Your task to perform on an android device: Search for 12ft 120W LED tube light on home depot Image 0: 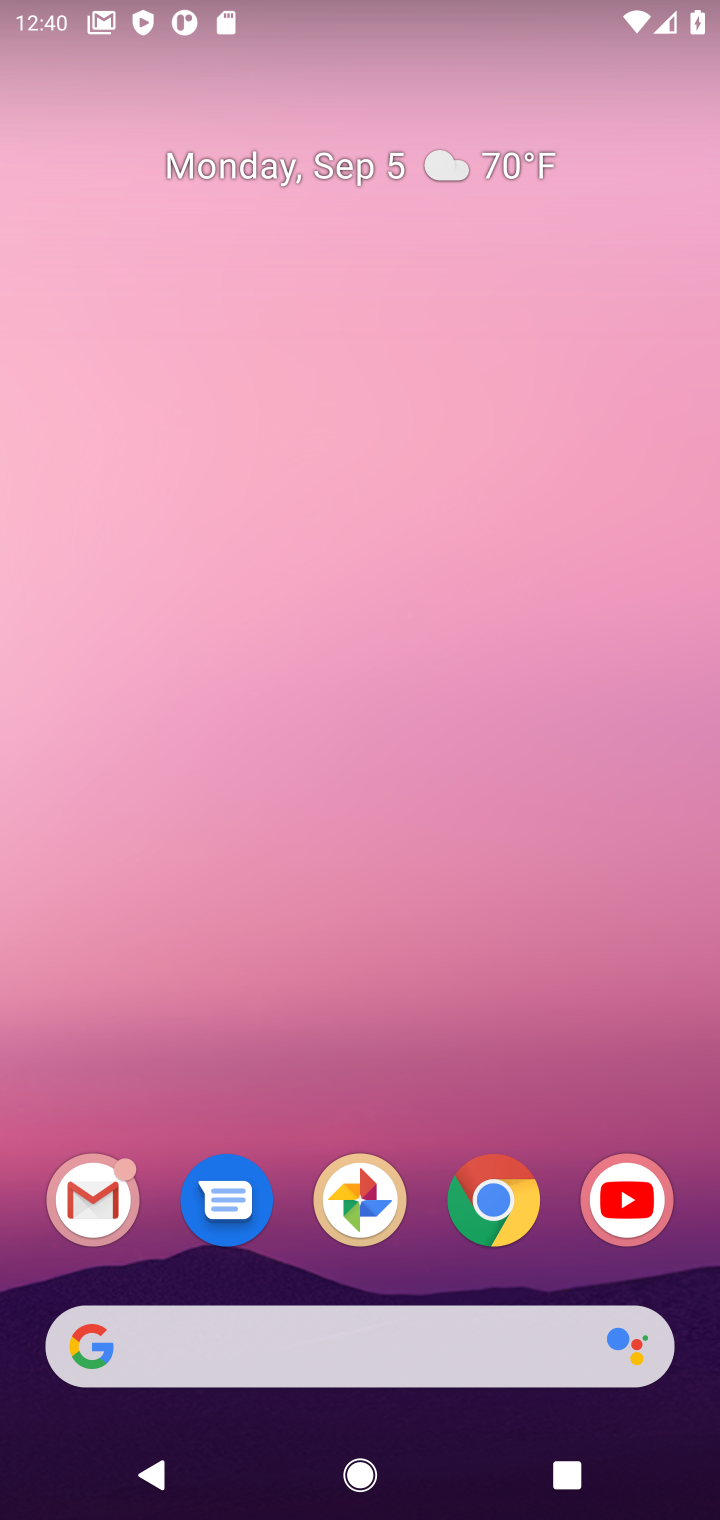
Step 0: click (366, 522)
Your task to perform on an android device: Search for 12ft 120W LED tube light on home depot Image 1: 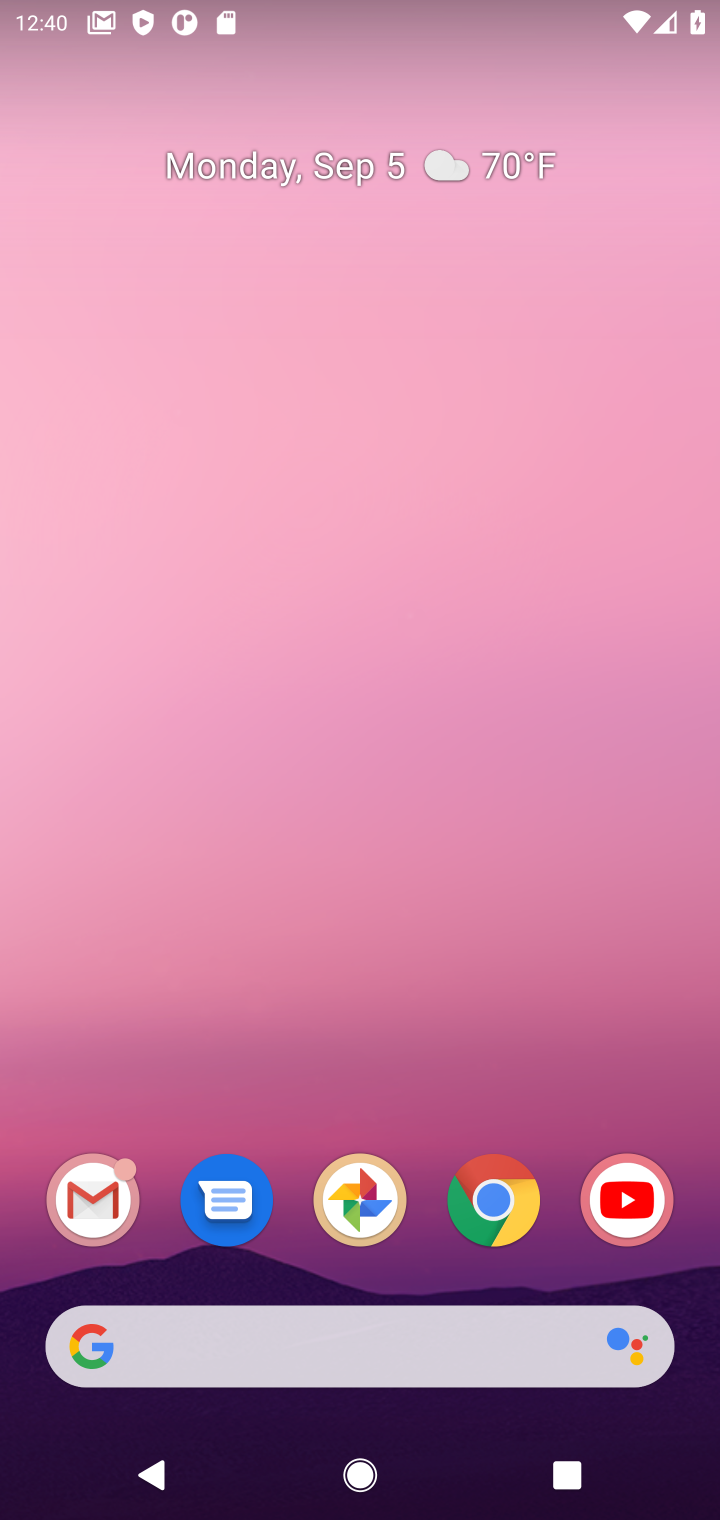
Step 1: drag from (448, 1175) to (420, 310)
Your task to perform on an android device: Search for 12ft 120W LED tube light on home depot Image 2: 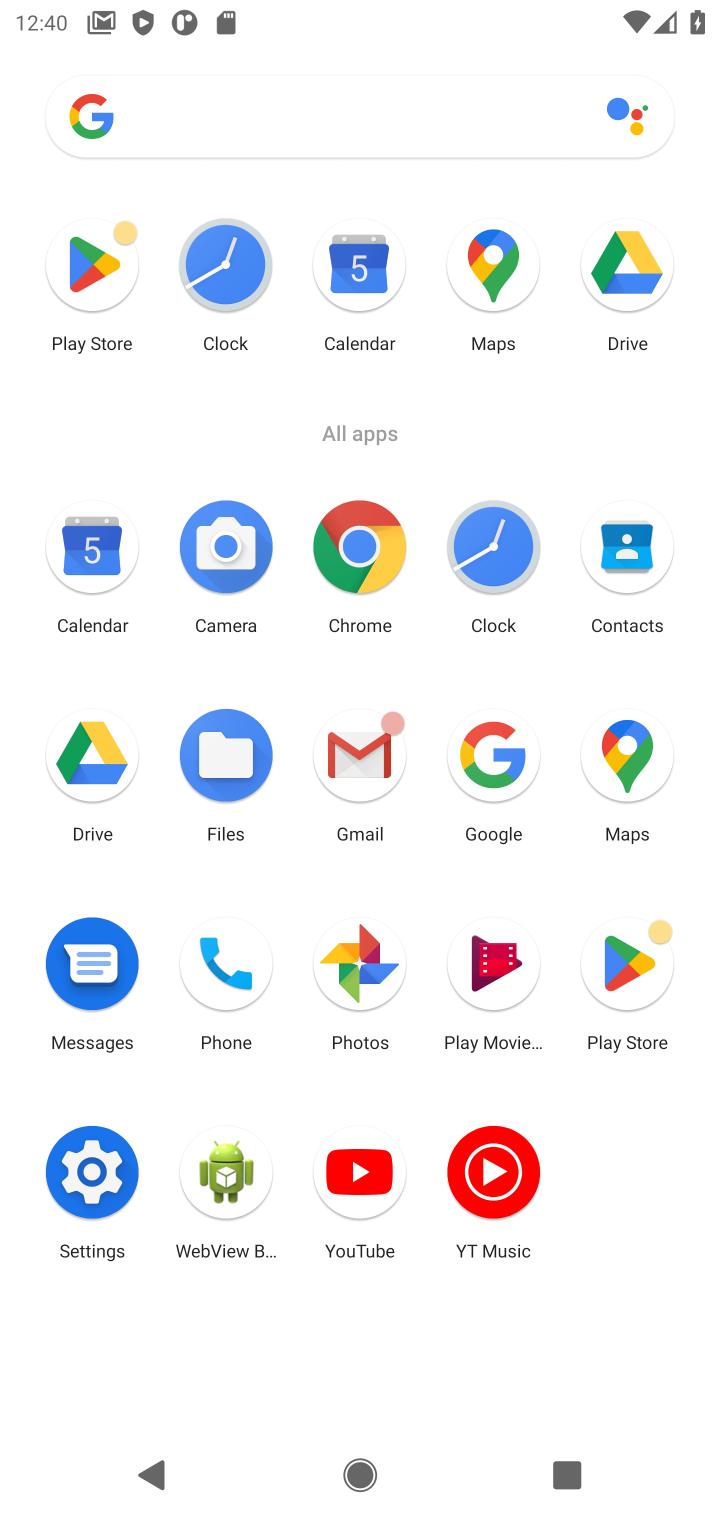
Step 2: click (366, 601)
Your task to perform on an android device: Search for 12ft 120W LED tube light on home depot Image 3: 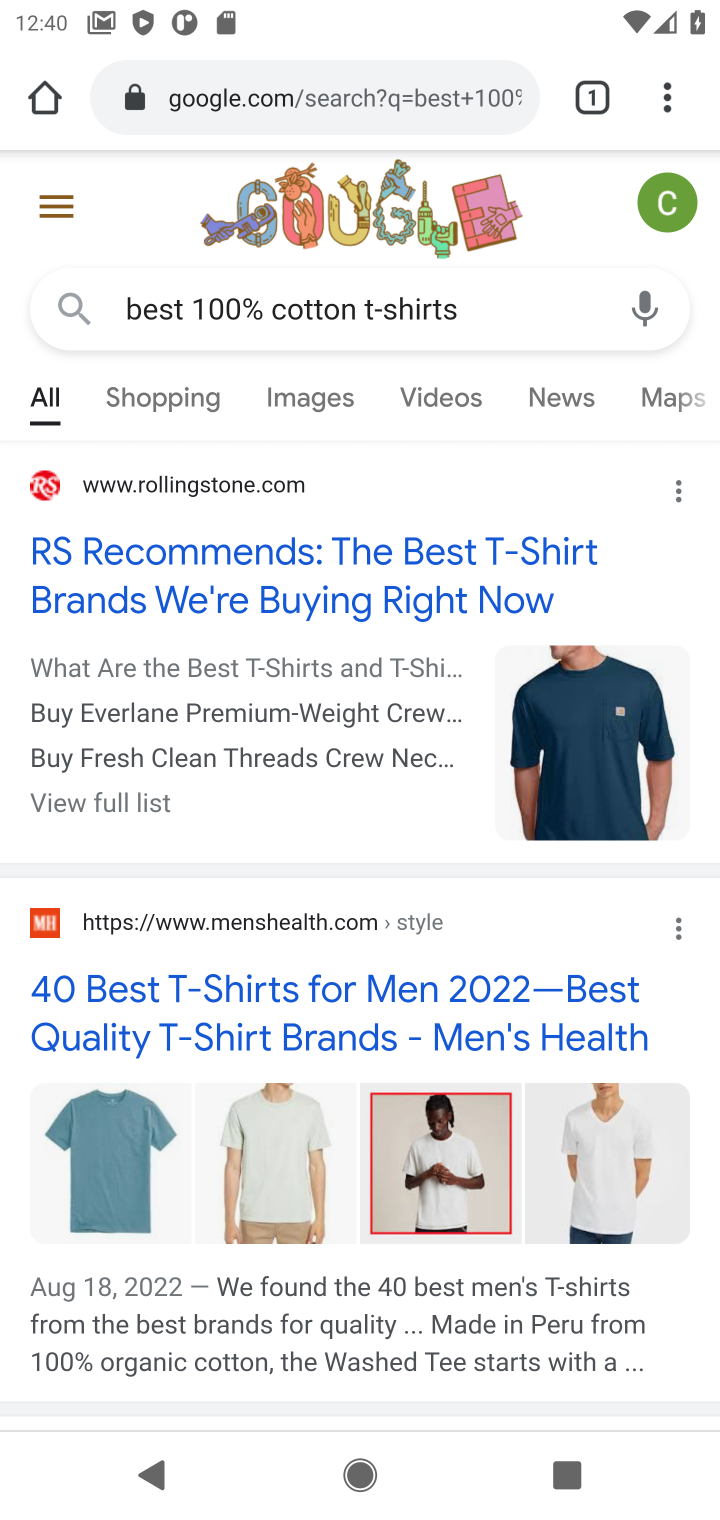
Step 3: click (480, 93)
Your task to perform on an android device: Search for 12ft 120W LED tube light on home depot Image 4: 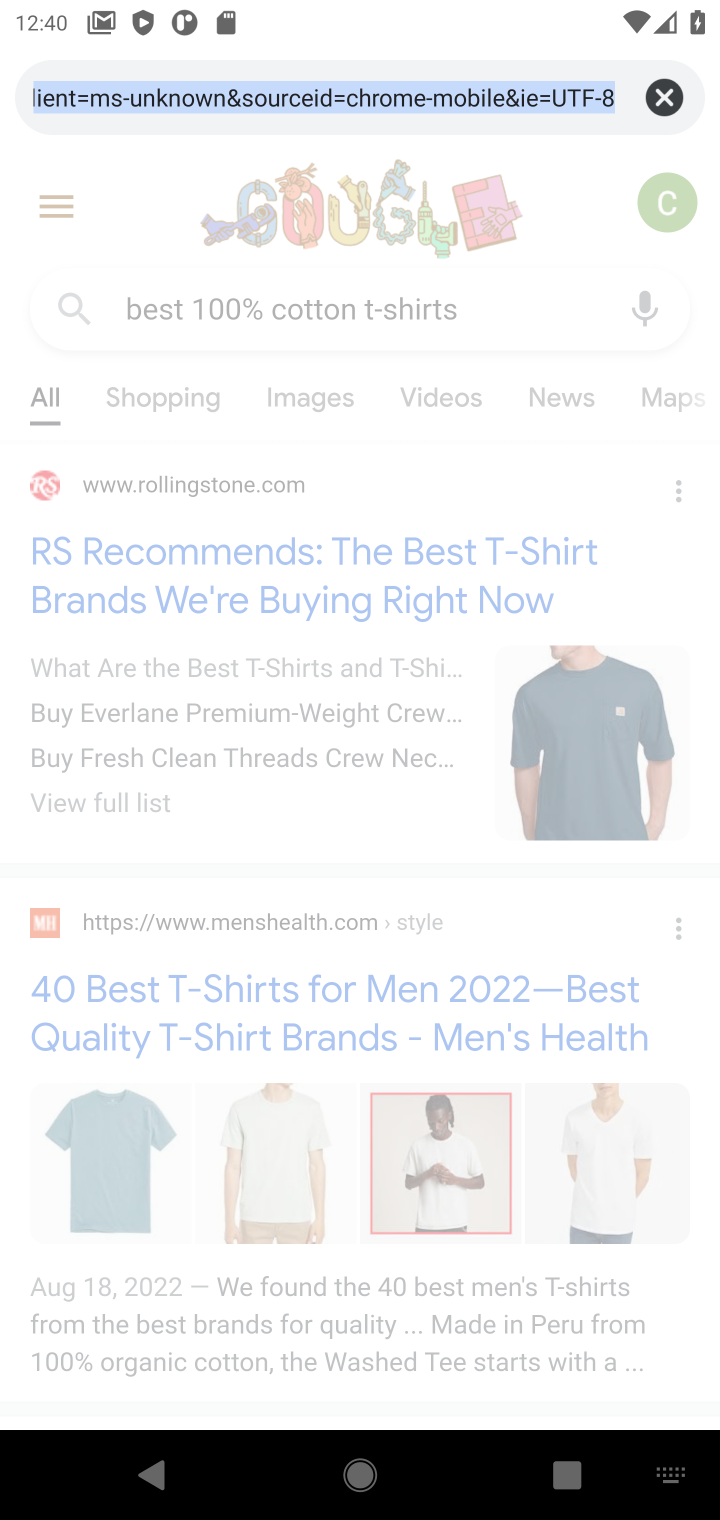
Step 4: type "home depot"
Your task to perform on an android device: Search for 12ft 120W LED tube light on home depot Image 5: 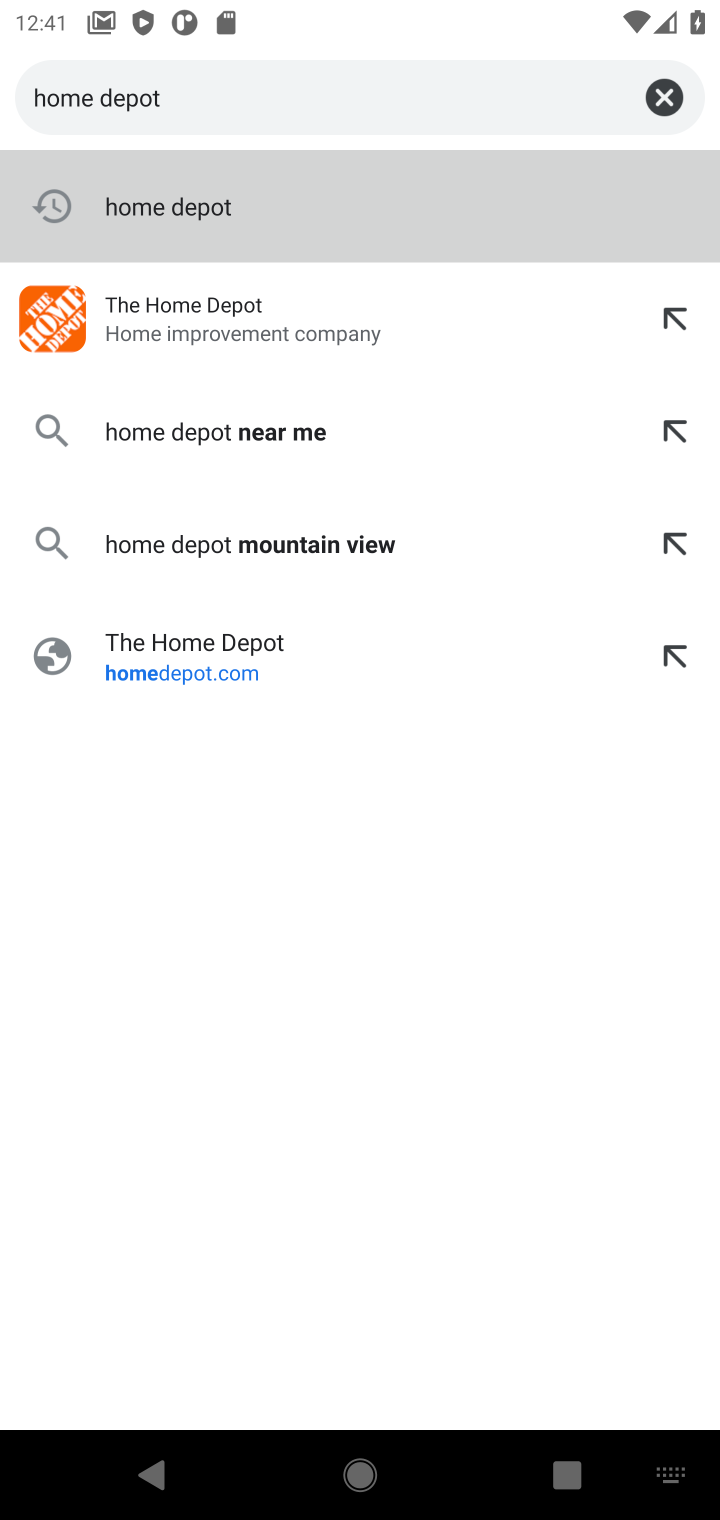
Step 5: click (92, 341)
Your task to perform on an android device: Search for 12ft 120W LED tube light on home depot Image 6: 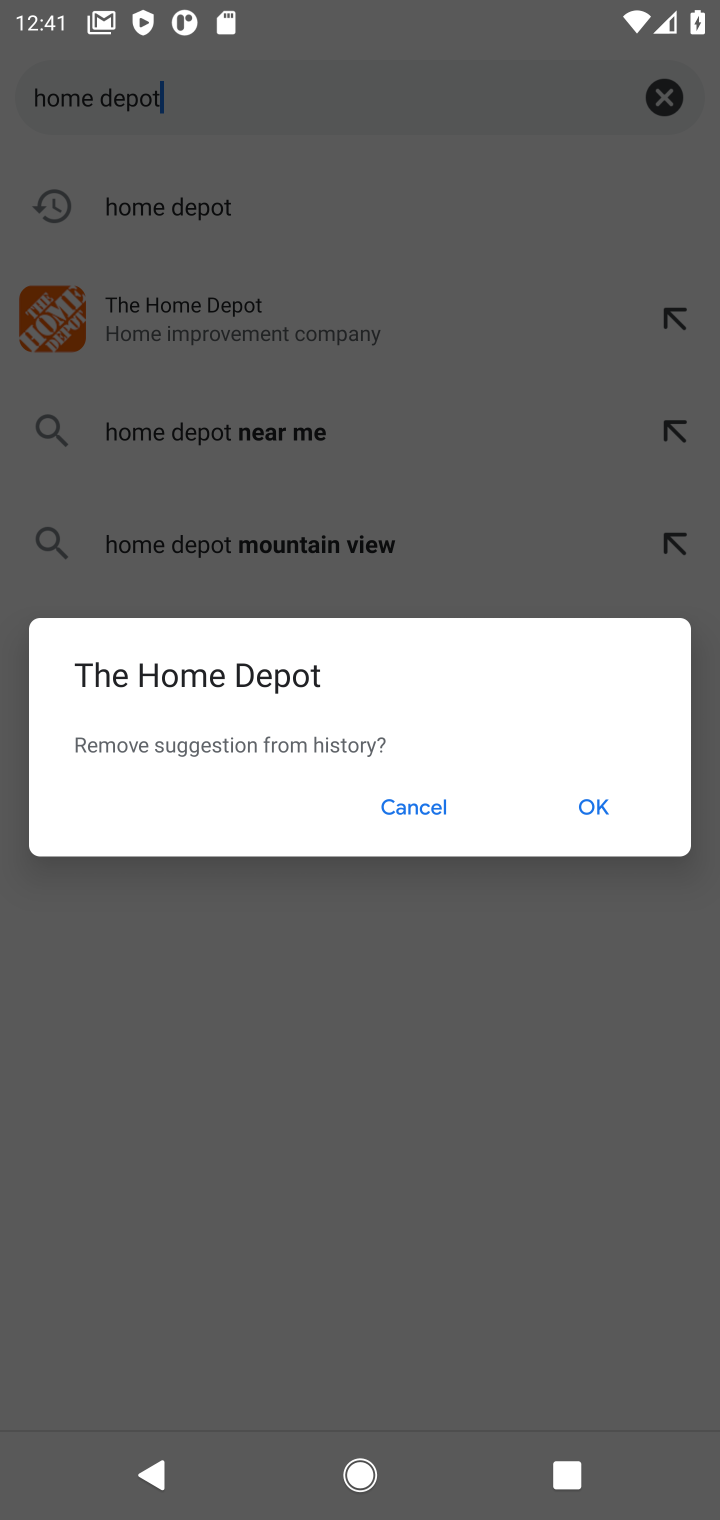
Step 6: click (406, 806)
Your task to perform on an android device: Search for 12ft 120W LED tube light on home depot Image 7: 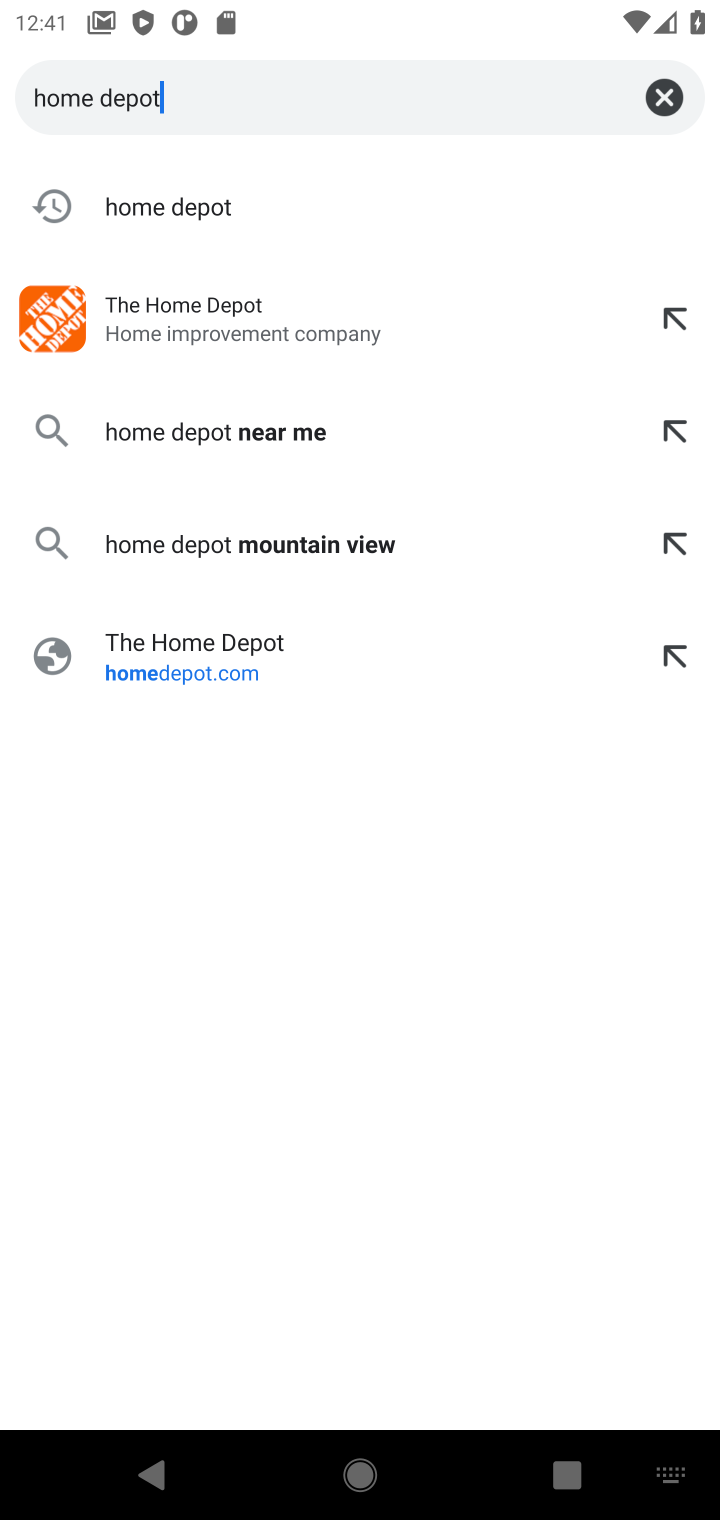
Step 7: click (86, 306)
Your task to perform on an android device: Search for 12ft 120W LED tube light on home depot Image 8: 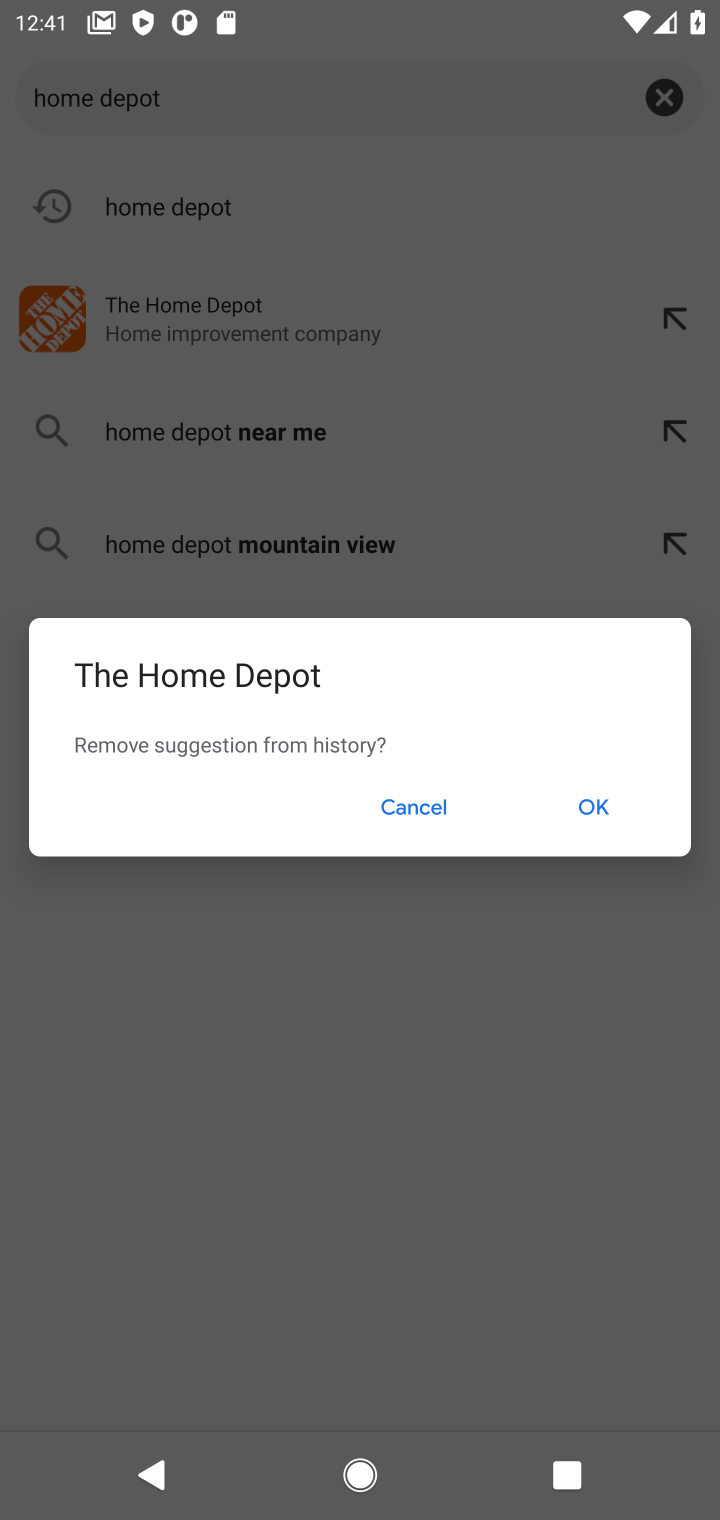
Step 8: click (409, 804)
Your task to perform on an android device: Search for 12ft 120W LED tube light on home depot Image 9: 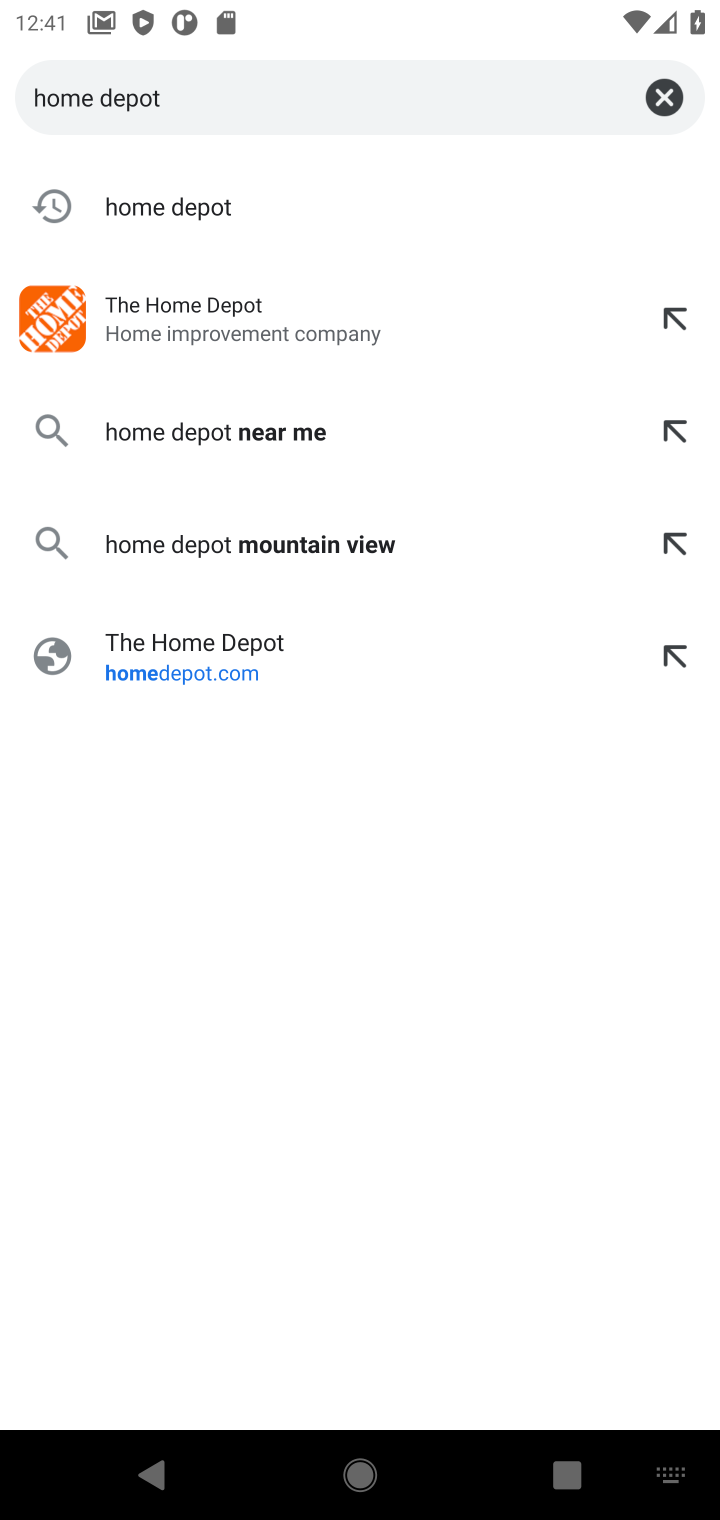
Step 9: click (56, 321)
Your task to perform on an android device: Search for 12ft 120W LED tube light on home depot Image 10: 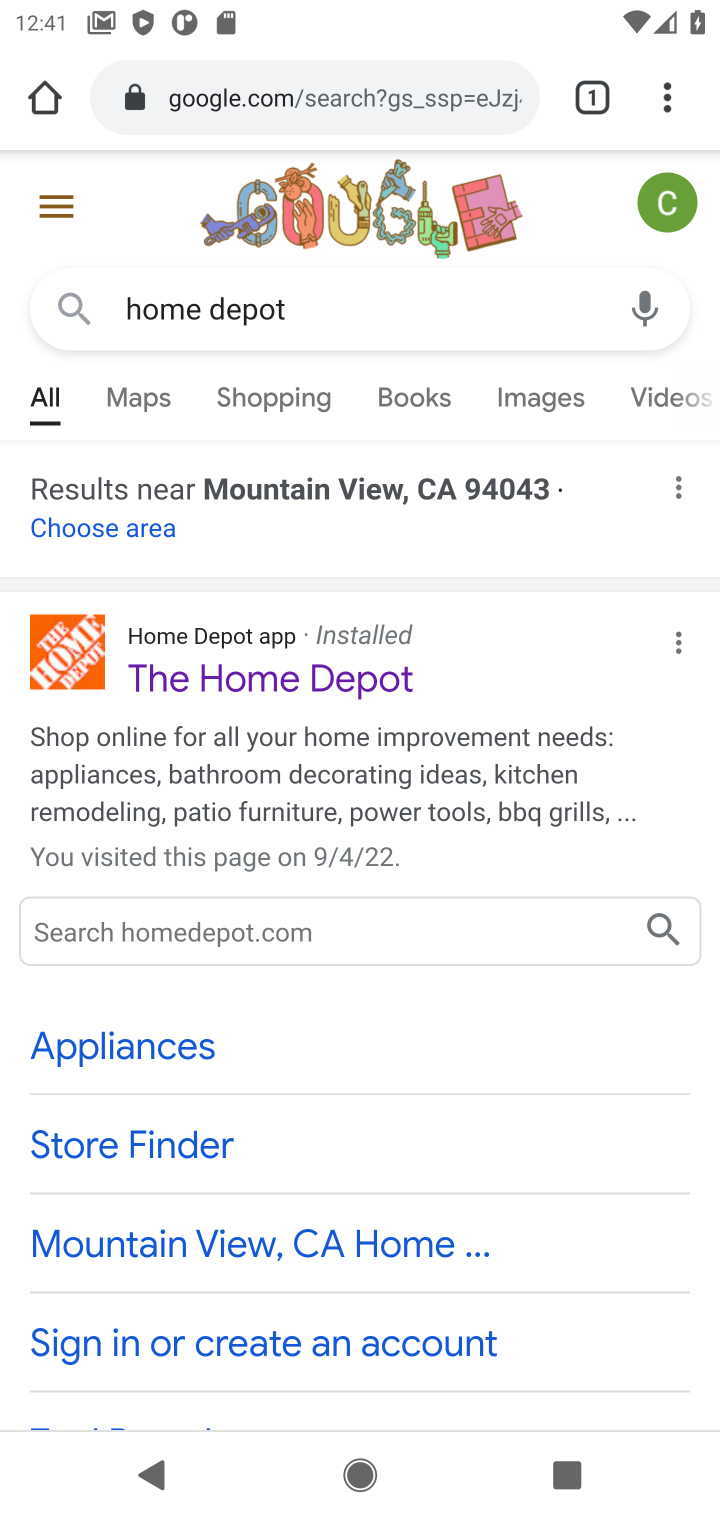
Step 10: click (194, 691)
Your task to perform on an android device: Search for 12ft 120W LED tube light on home depot Image 11: 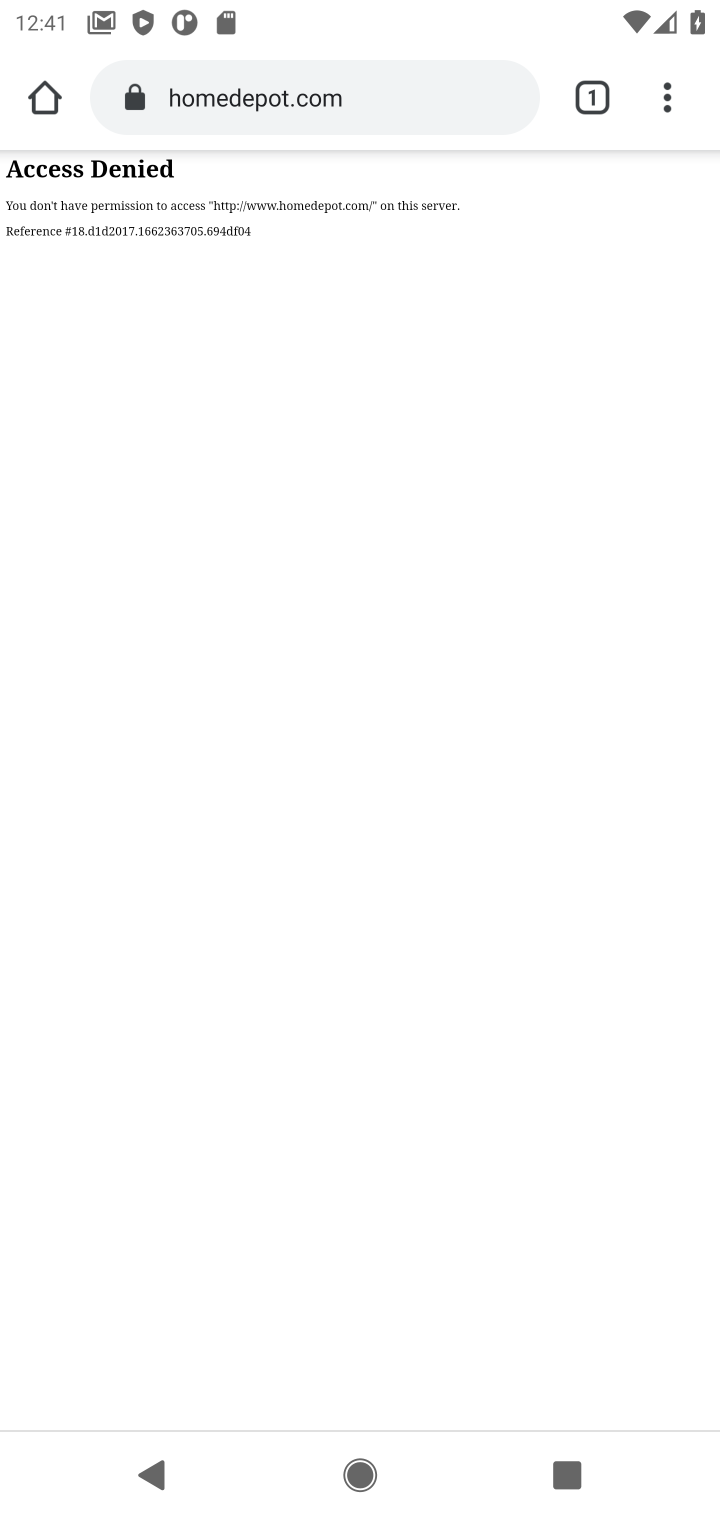
Step 11: task complete